Your task to perform on an android device: Go to calendar. Show me events next week Image 0: 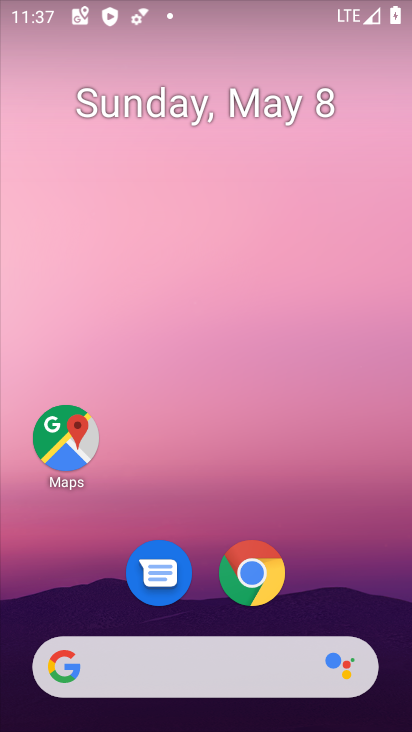
Step 0: drag from (303, 584) to (305, 13)
Your task to perform on an android device: Go to calendar. Show me events next week Image 1: 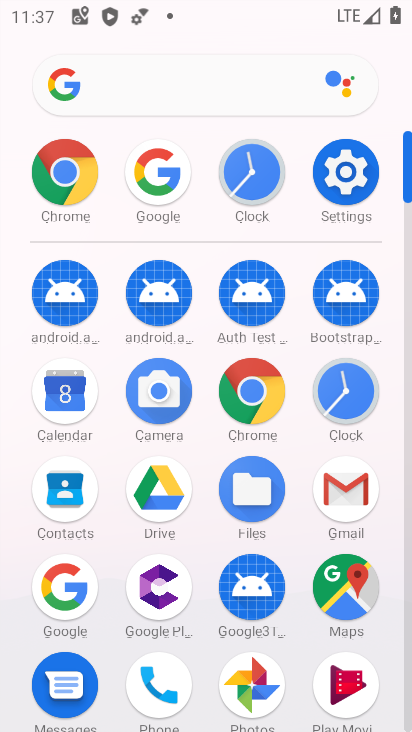
Step 1: click (62, 386)
Your task to perform on an android device: Go to calendar. Show me events next week Image 2: 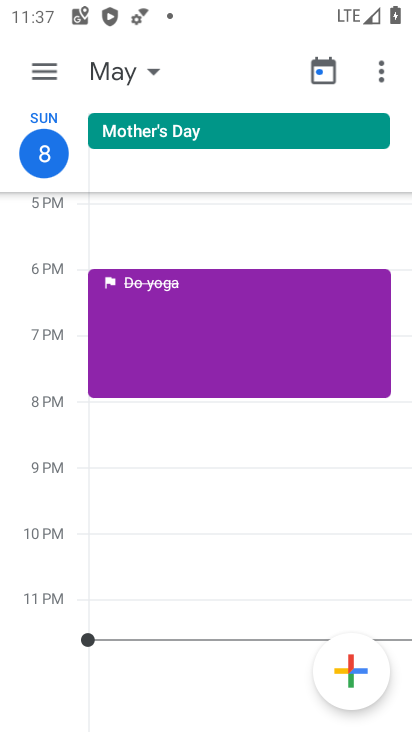
Step 2: click (330, 60)
Your task to perform on an android device: Go to calendar. Show me events next week Image 3: 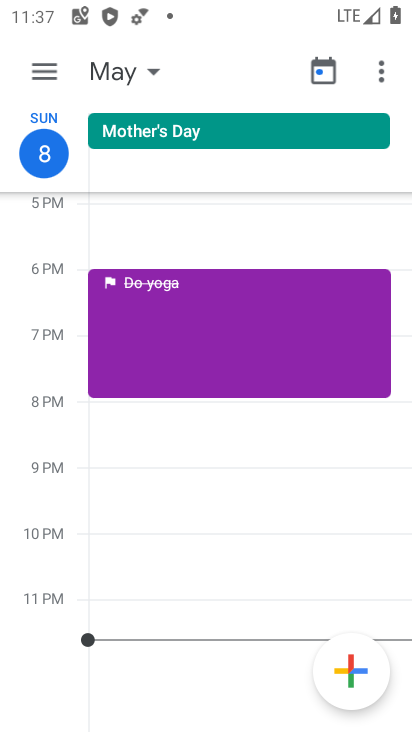
Step 3: click (59, 63)
Your task to perform on an android device: Go to calendar. Show me events next week Image 4: 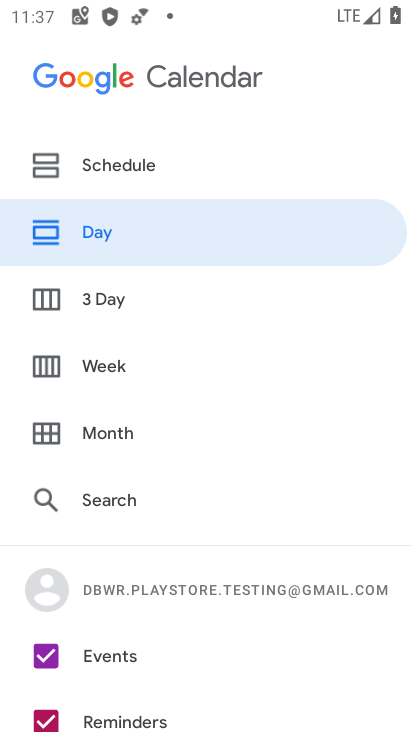
Step 4: click (122, 361)
Your task to perform on an android device: Go to calendar. Show me events next week Image 5: 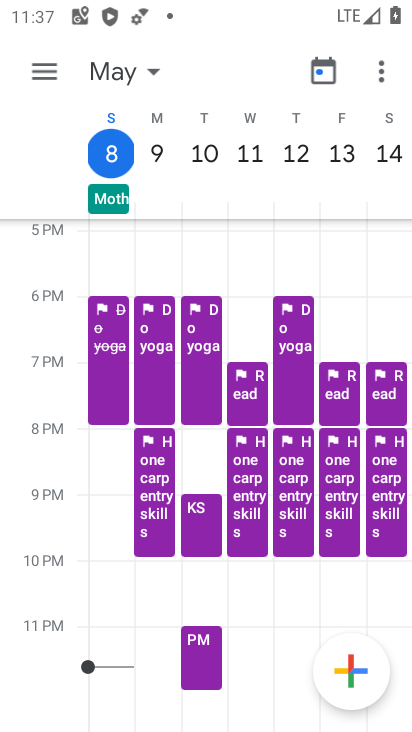
Step 5: task complete